Your task to perform on an android device: Set the phone to "Do not disturb". Image 0: 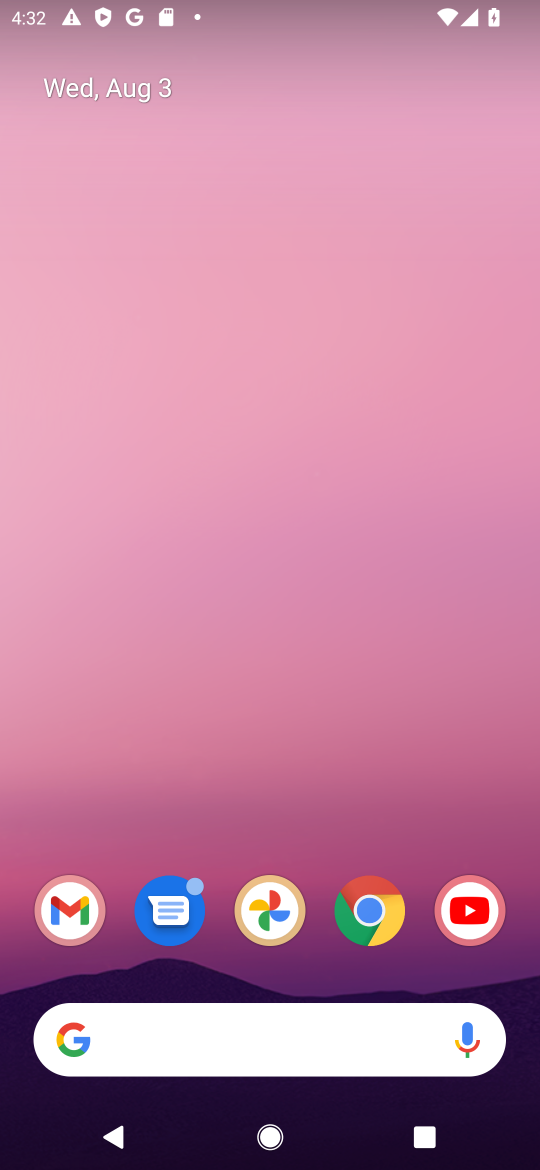
Step 0: drag from (75, 953) to (245, 70)
Your task to perform on an android device: Set the phone to "Do not disturb". Image 1: 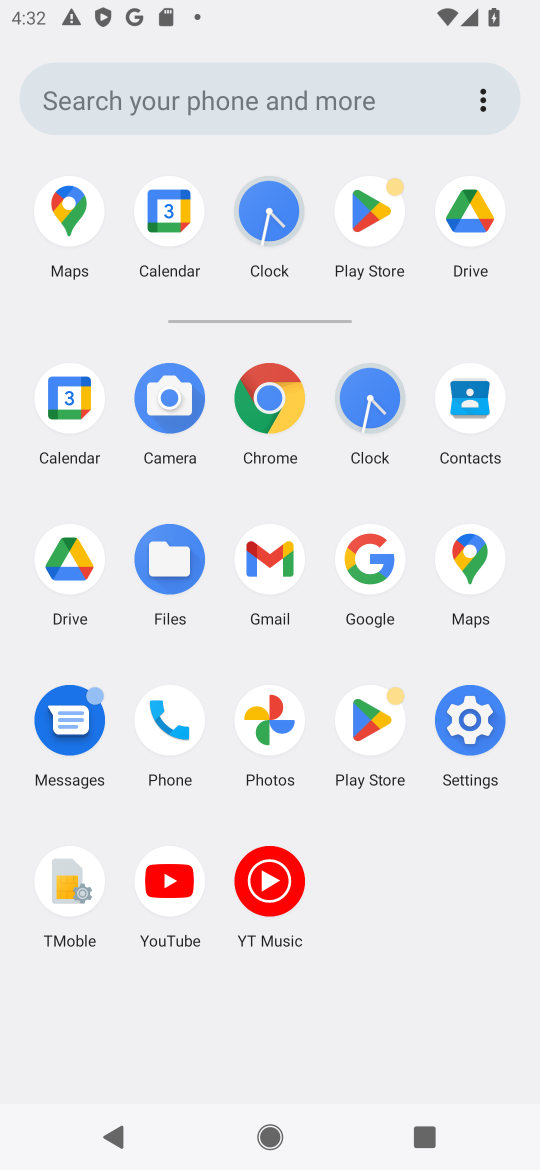
Step 1: click (485, 727)
Your task to perform on an android device: Set the phone to "Do not disturb". Image 2: 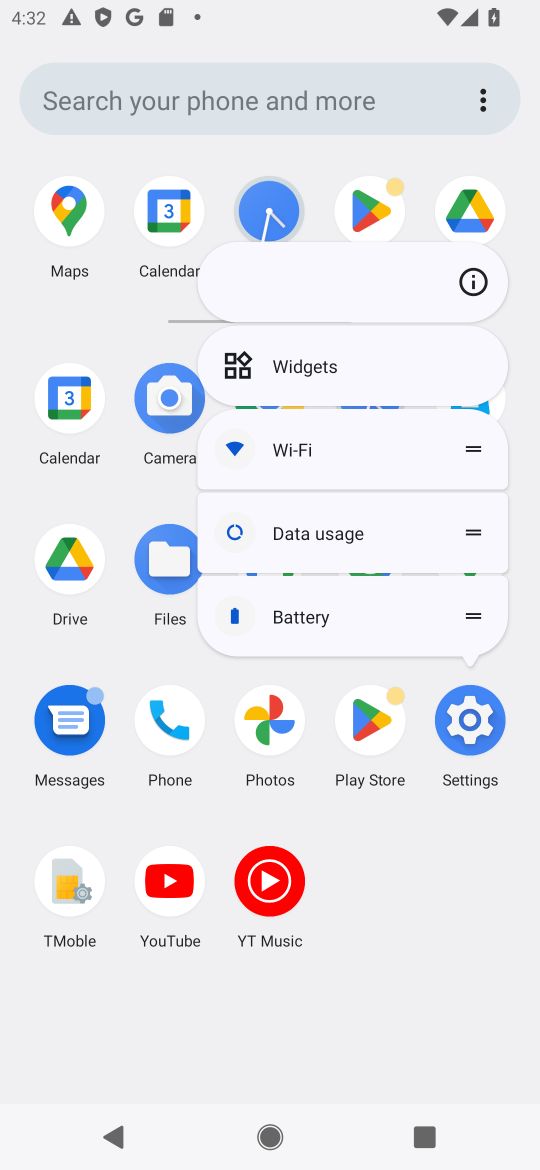
Step 2: click (457, 719)
Your task to perform on an android device: Set the phone to "Do not disturb". Image 3: 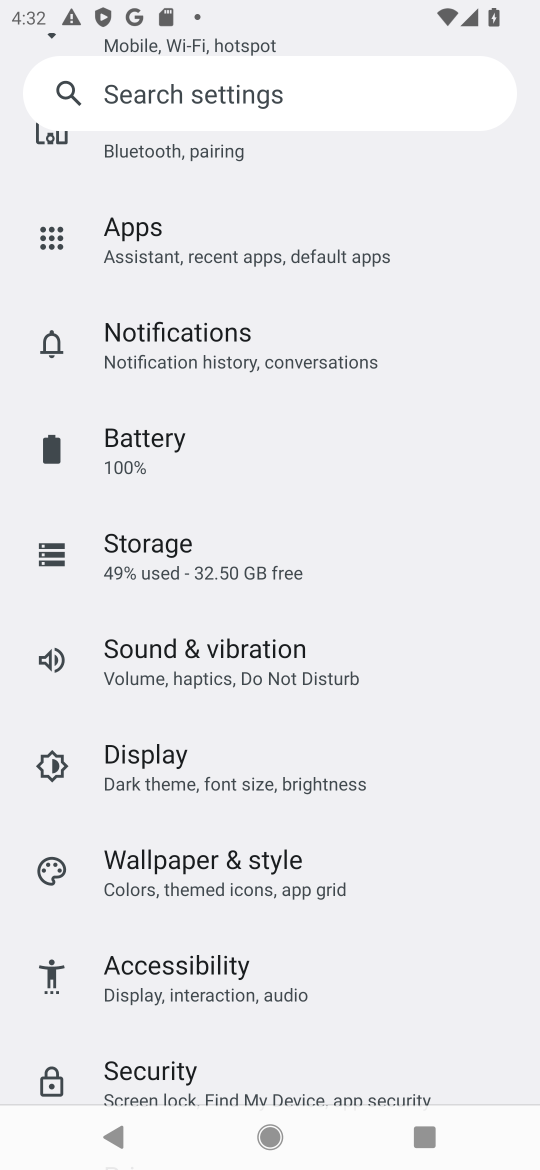
Step 3: click (198, 666)
Your task to perform on an android device: Set the phone to "Do not disturb". Image 4: 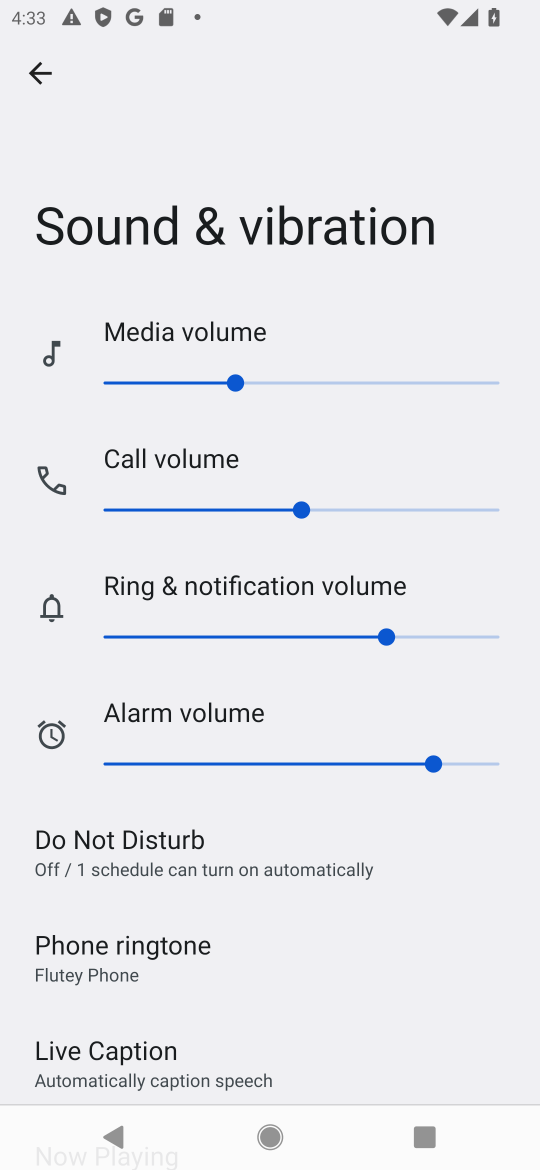
Step 4: drag from (263, 870) to (294, 529)
Your task to perform on an android device: Set the phone to "Do not disturb". Image 5: 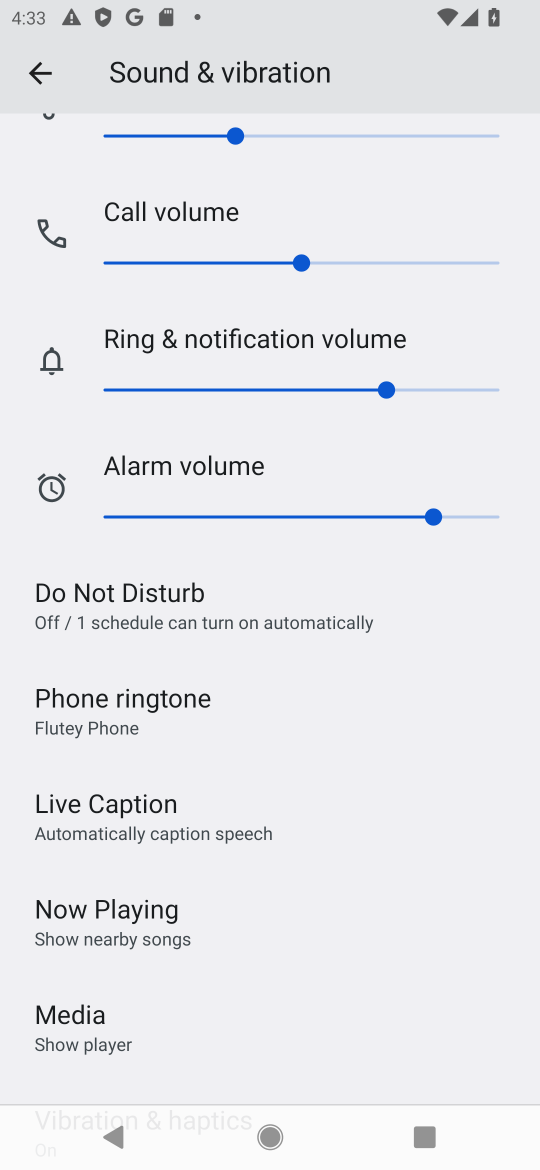
Step 5: click (154, 599)
Your task to perform on an android device: Set the phone to "Do not disturb". Image 6: 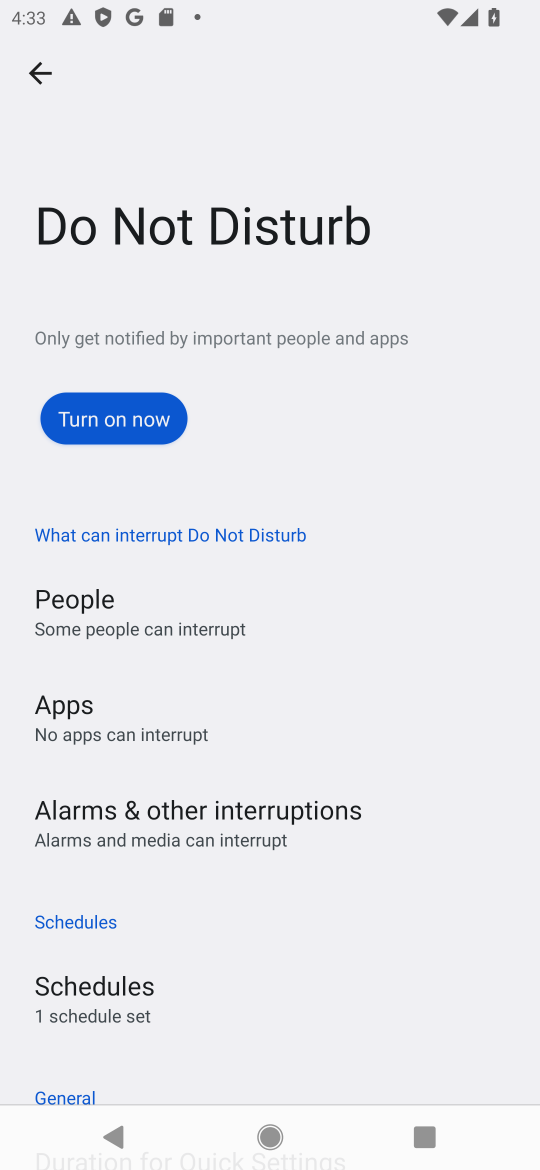
Step 6: click (104, 412)
Your task to perform on an android device: Set the phone to "Do not disturb". Image 7: 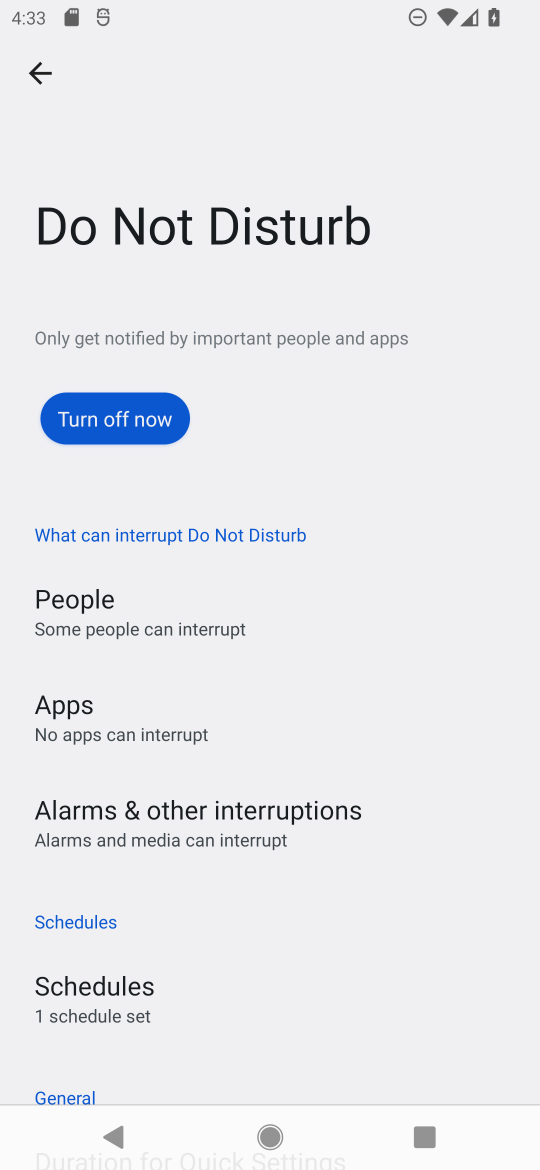
Step 7: task complete